Your task to perform on an android device: Search for "usb-b" on ebay, select the first entry, and add it to the cart. Image 0: 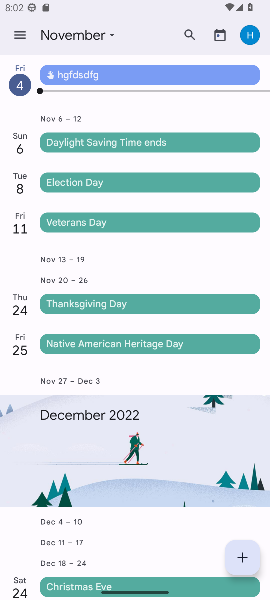
Step 0: press home button
Your task to perform on an android device: Search for "usb-b" on ebay, select the first entry, and add it to the cart. Image 1: 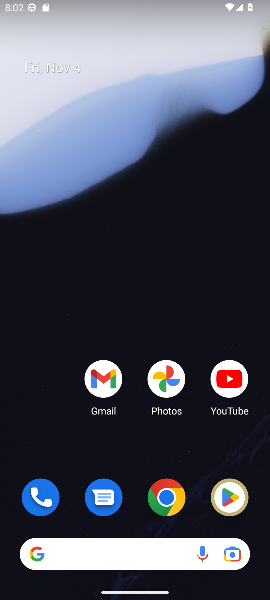
Step 1: click (164, 500)
Your task to perform on an android device: Search for "usb-b" on ebay, select the first entry, and add it to the cart. Image 2: 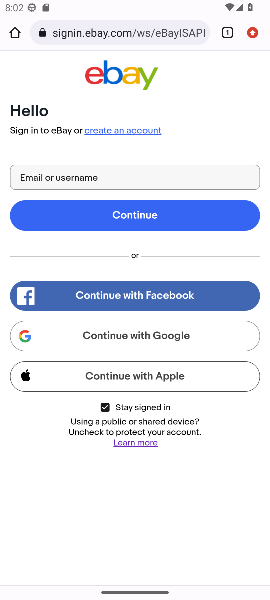
Step 2: press back button
Your task to perform on an android device: Search for "usb-b" on ebay, select the first entry, and add it to the cart. Image 3: 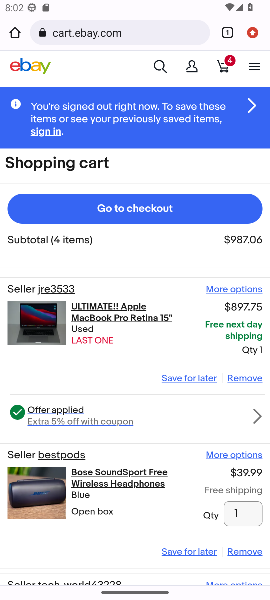
Step 3: click (158, 66)
Your task to perform on an android device: Search for "usb-b" on ebay, select the first entry, and add it to the cart. Image 4: 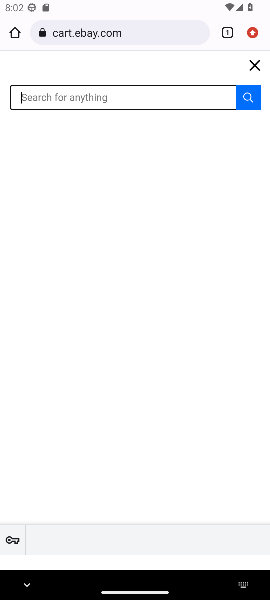
Step 4: type "usb-b"
Your task to perform on an android device: Search for "usb-b" on ebay, select the first entry, and add it to the cart. Image 5: 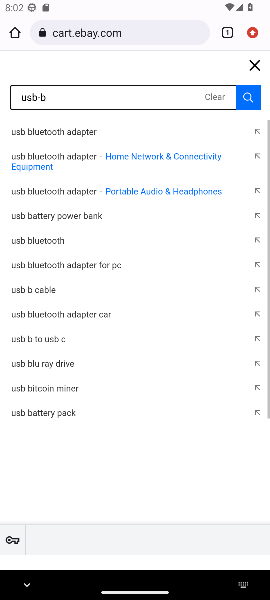
Step 5: click (243, 98)
Your task to perform on an android device: Search for "usb-b" on ebay, select the first entry, and add it to the cart. Image 6: 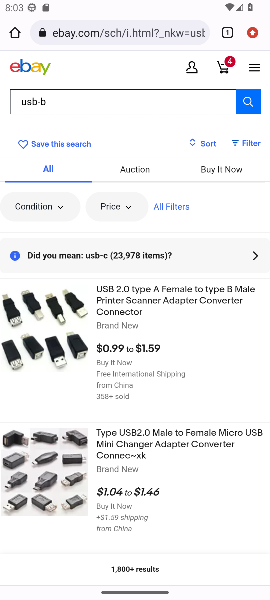
Step 6: click (64, 342)
Your task to perform on an android device: Search for "usb-b" on ebay, select the first entry, and add it to the cart. Image 7: 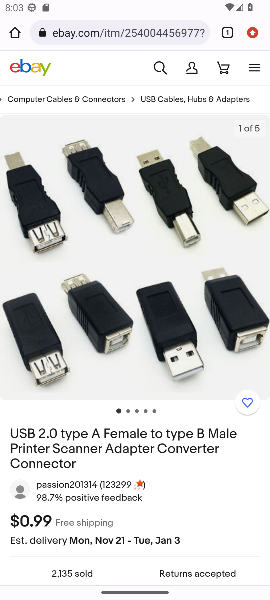
Step 7: drag from (159, 425) to (116, 147)
Your task to perform on an android device: Search for "usb-b" on ebay, select the first entry, and add it to the cart. Image 8: 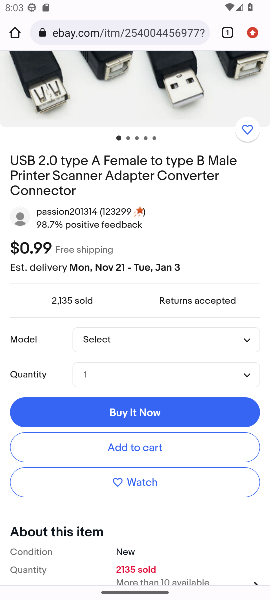
Step 8: click (129, 444)
Your task to perform on an android device: Search for "usb-b" on ebay, select the first entry, and add it to the cart. Image 9: 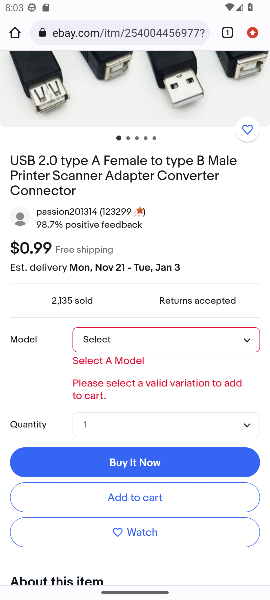
Step 9: click (250, 342)
Your task to perform on an android device: Search for "usb-b" on ebay, select the first entry, and add it to the cart. Image 10: 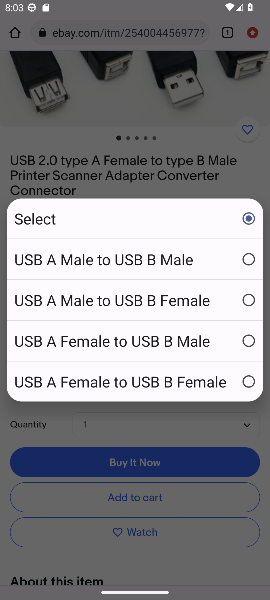
Step 10: click (113, 267)
Your task to perform on an android device: Search for "usb-b" on ebay, select the first entry, and add it to the cart. Image 11: 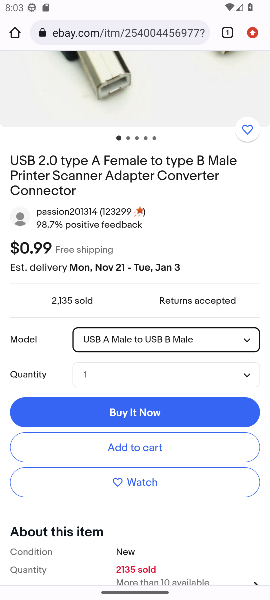
Step 11: click (126, 446)
Your task to perform on an android device: Search for "usb-b" on ebay, select the first entry, and add it to the cart. Image 12: 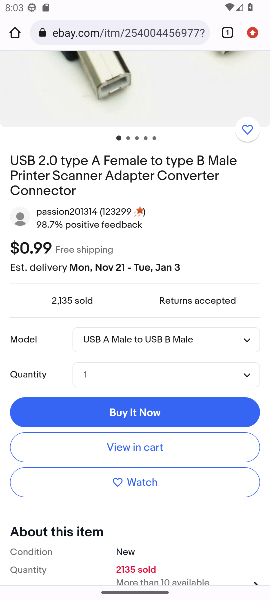
Step 12: task complete